Your task to perform on an android device: Go to accessibility settings Image 0: 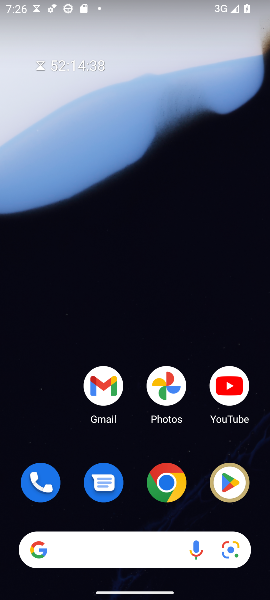
Step 0: drag from (72, 518) to (61, 97)
Your task to perform on an android device: Go to accessibility settings Image 1: 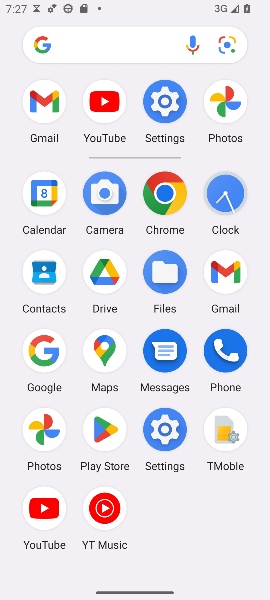
Step 1: click (162, 113)
Your task to perform on an android device: Go to accessibility settings Image 2: 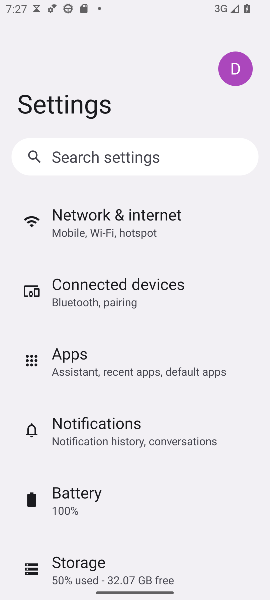
Step 2: drag from (83, 557) to (79, 160)
Your task to perform on an android device: Go to accessibility settings Image 3: 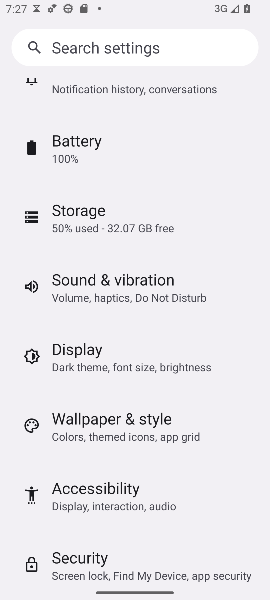
Step 3: click (69, 508)
Your task to perform on an android device: Go to accessibility settings Image 4: 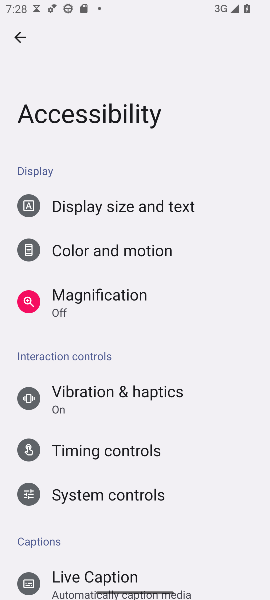
Step 4: task complete